Your task to perform on an android device: Search for vintage wall art on Etsy. Image 0: 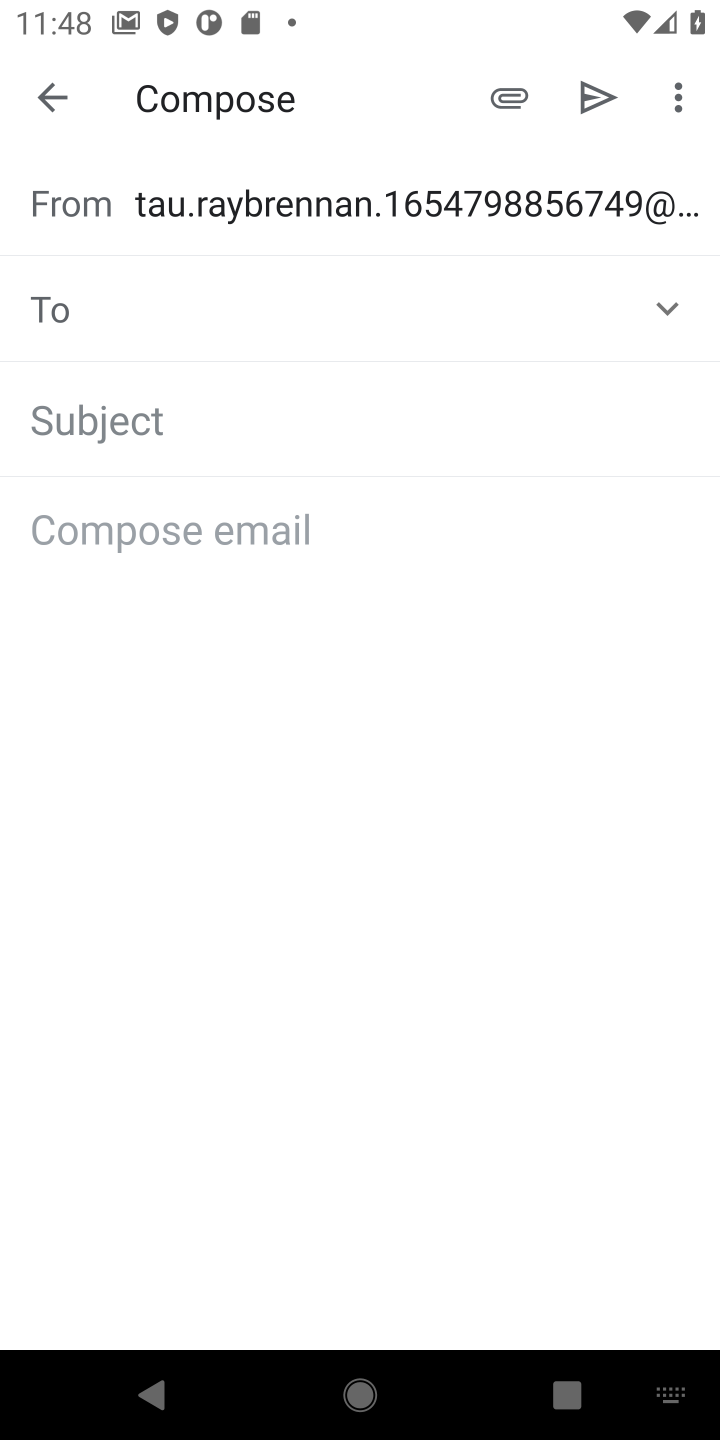
Step 0: press home button
Your task to perform on an android device: Search for vintage wall art on Etsy. Image 1: 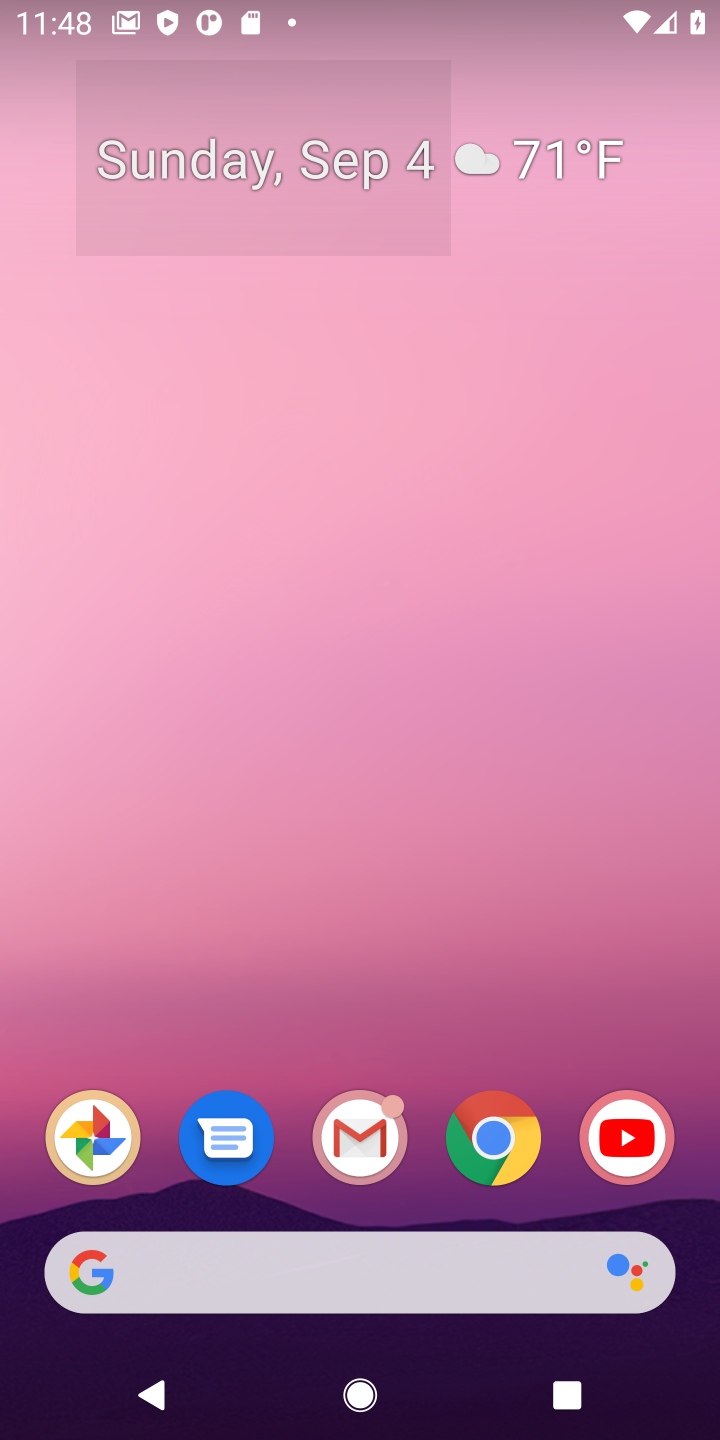
Step 1: click (508, 1180)
Your task to perform on an android device: Search for vintage wall art on Etsy. Image 2: 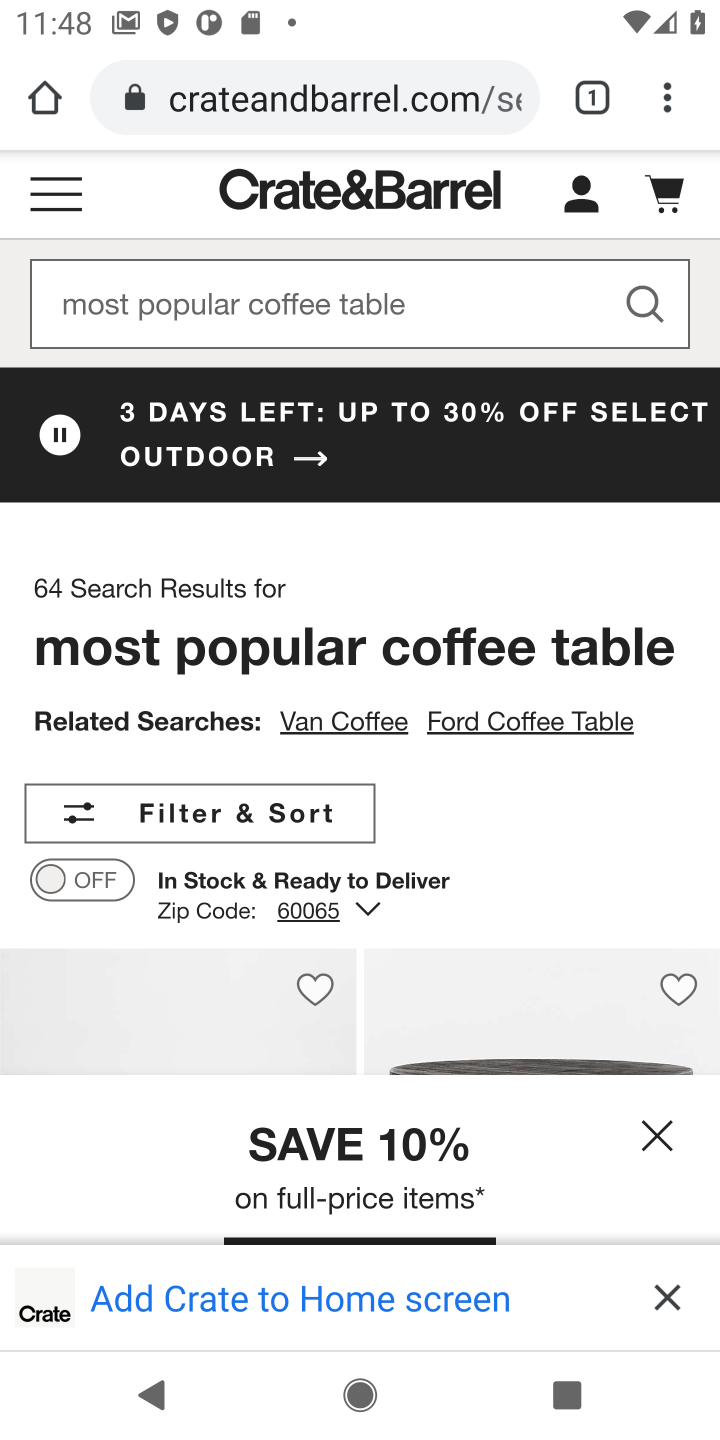
Step 2: click (377, 104)
Your task to perform on an android device: Search for vintage wall art on Etsy. Image 3: 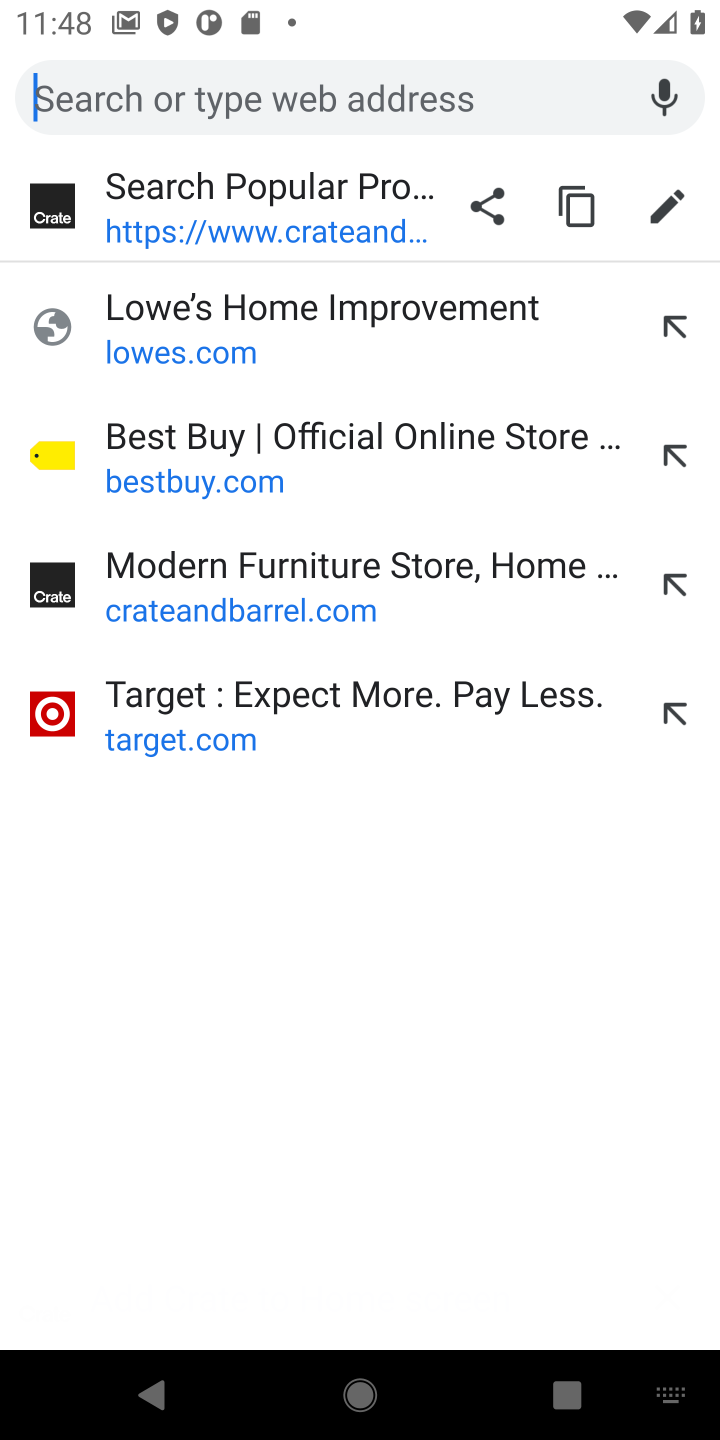
Step 3: type "etsy"
Your task to perform on an android device: Search for vintage wall art on Etsy. Image 4: 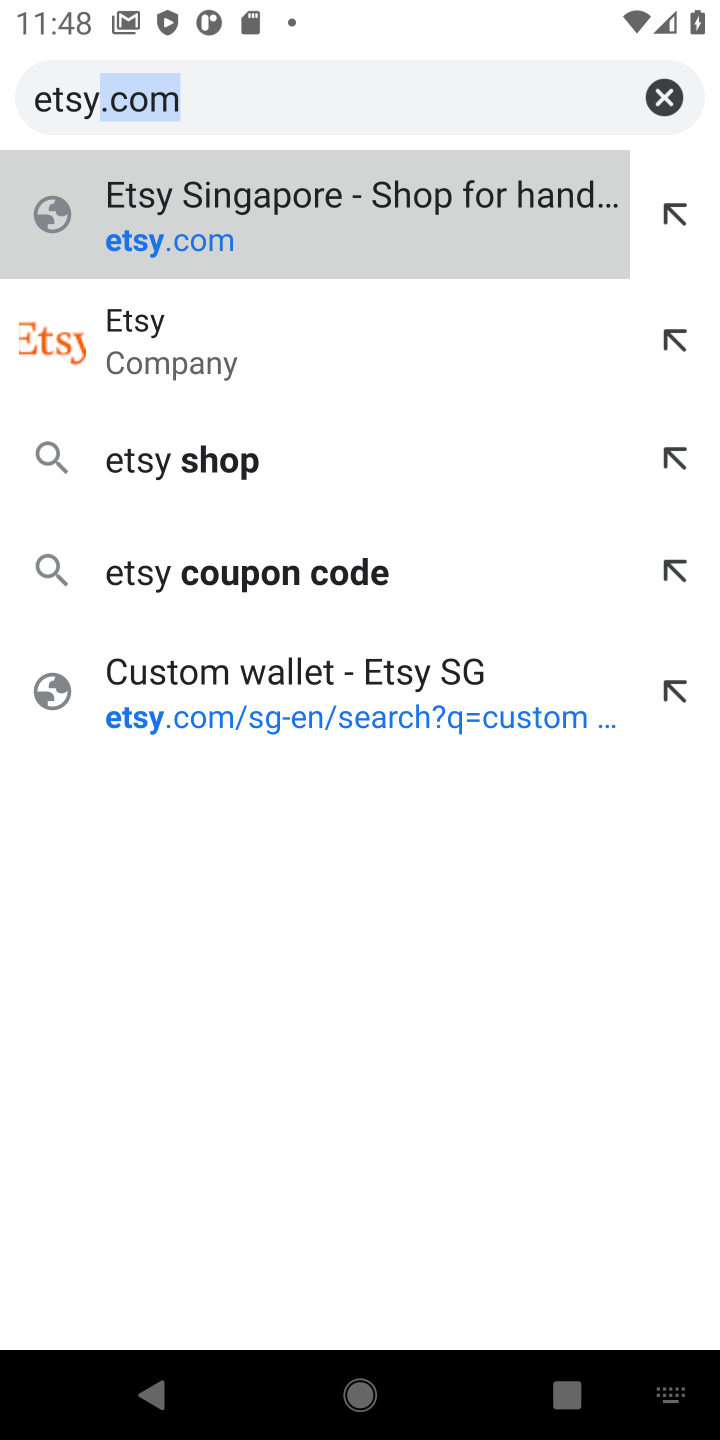
Step 4: click (313, 223)
Your task to perform on an android device: Search for vintage wall art on Etsy. Image 5: 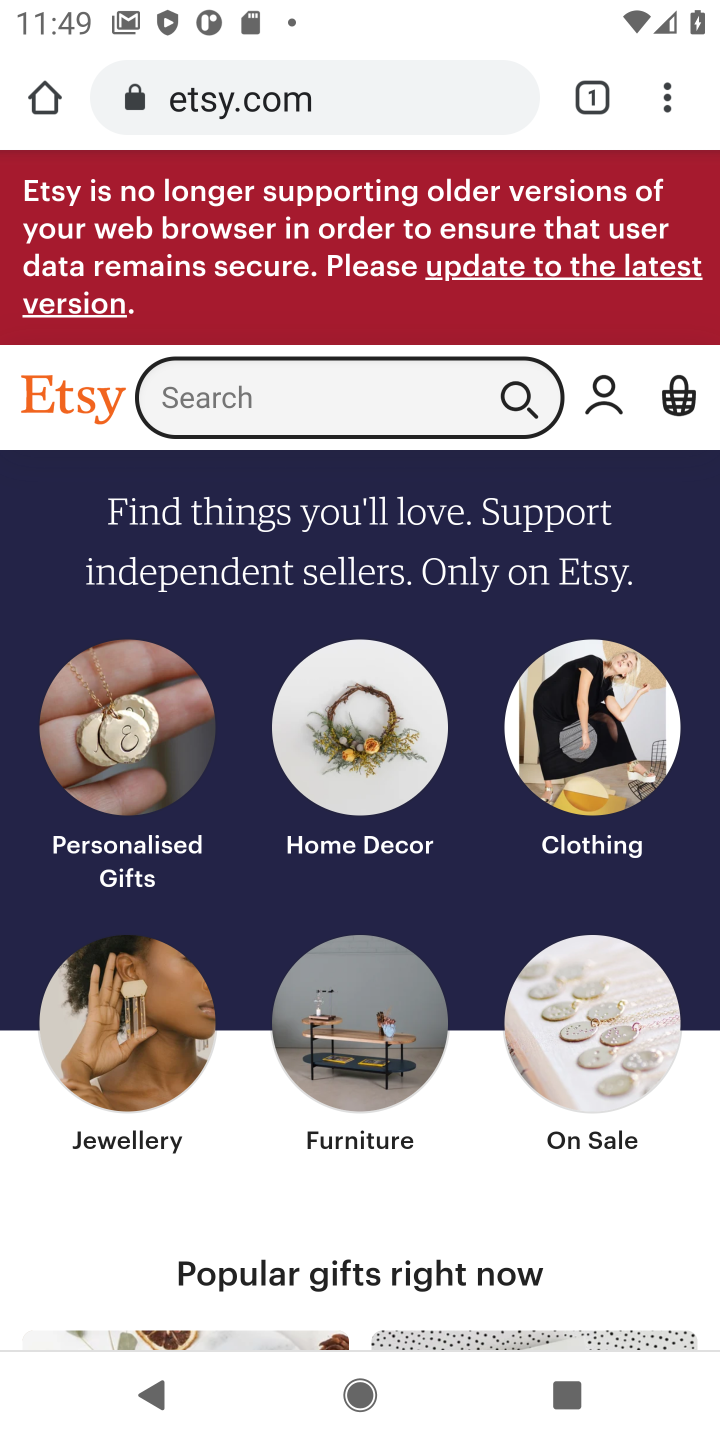
Step 5: click (375, 412)
Your task to perform on an android device: Search for vintage wall art on Etsy. Image 6: 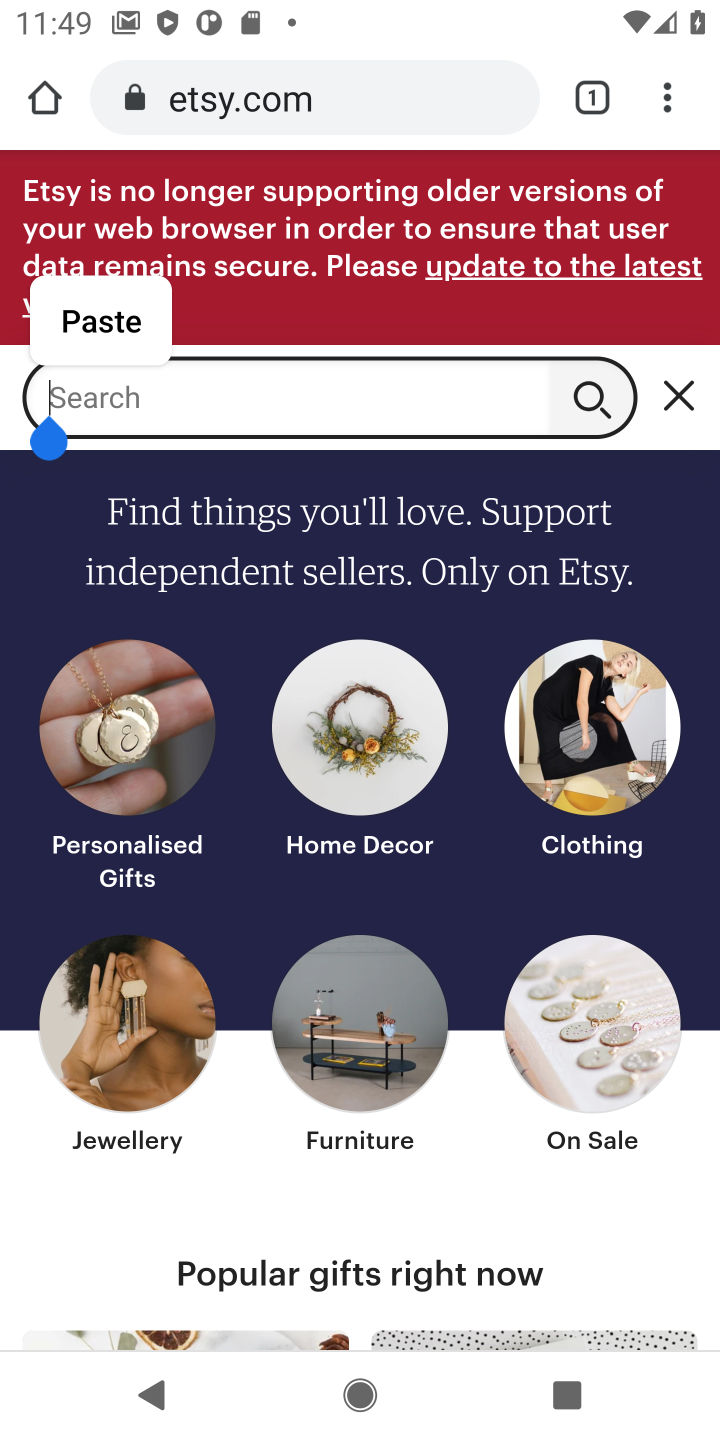
Step 6: type "vintage wall art"
Your task to perform on an android device: Search for vintage wall art on Etsy. Image 7: 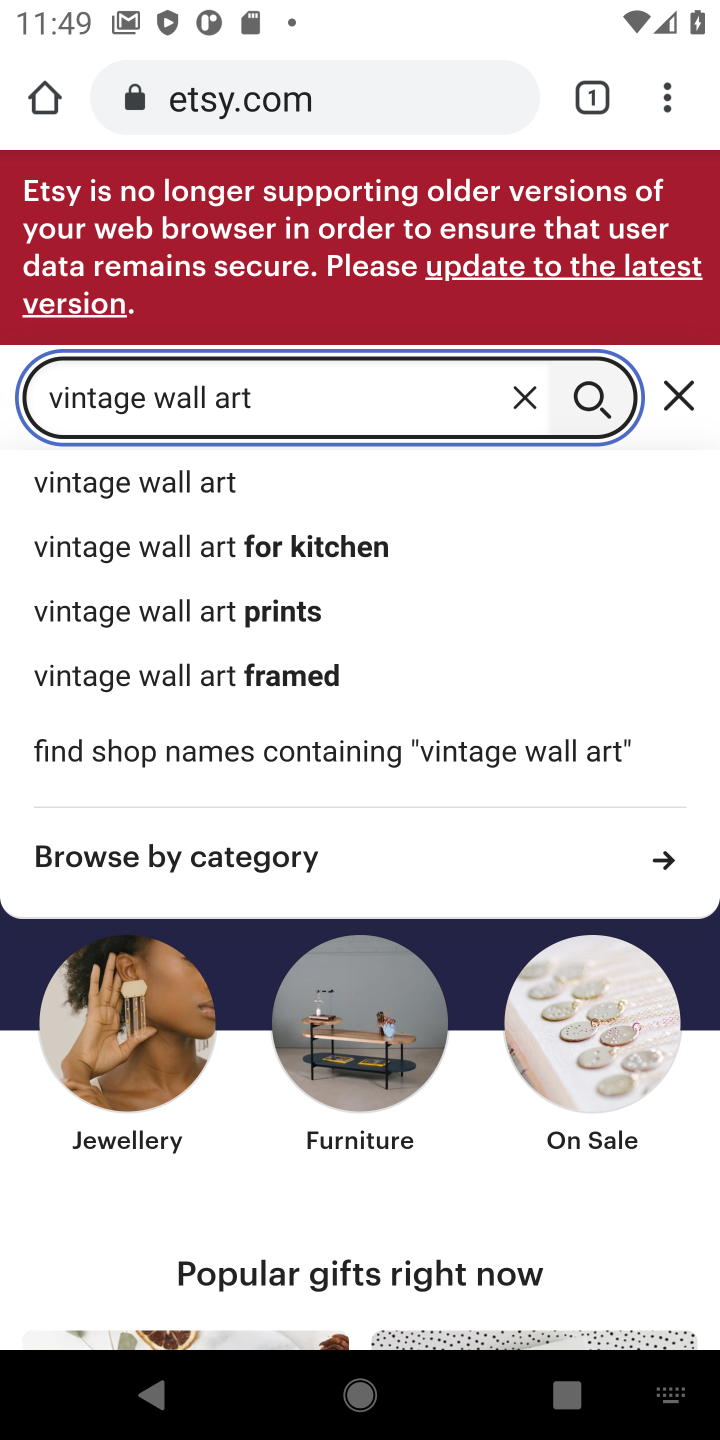
Step 7: click (103, 483)
Your task to perform on an android device: Search for vintage wall art on Etsy. Image 8: 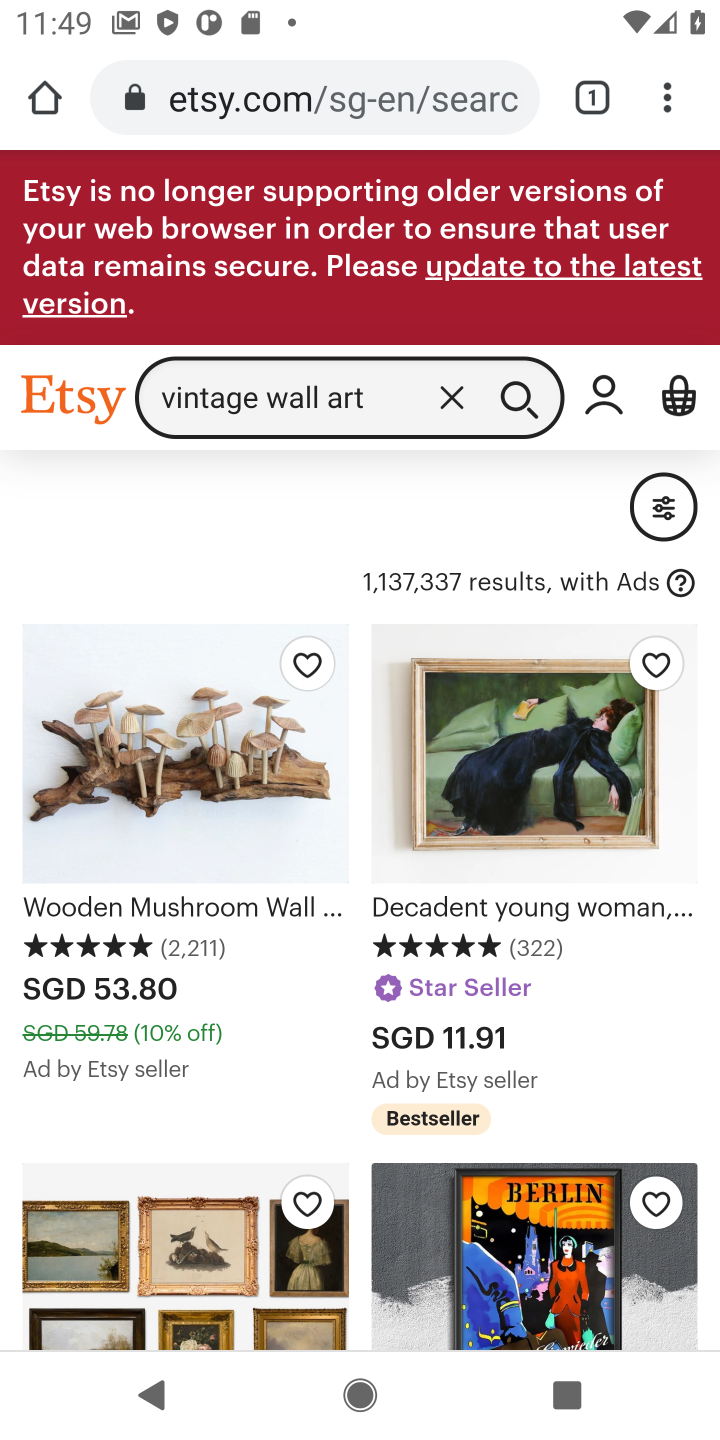
Step 8: task complete